Your task to perform on an android device: Do I have any events today? Image 0: 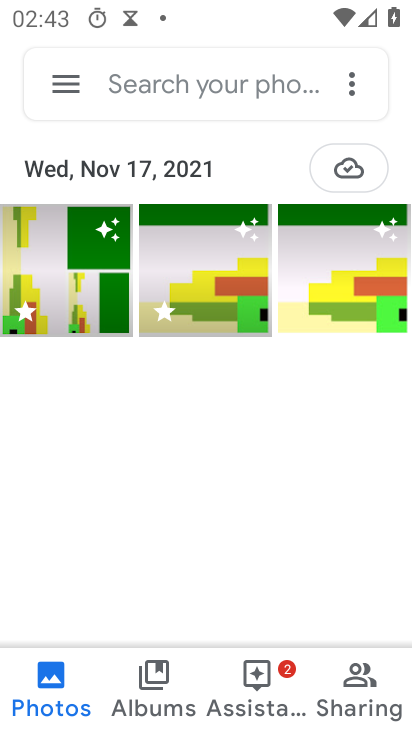
Step 0: press home button
Your task to perform on an android device: Do I have any events today? Image 1: 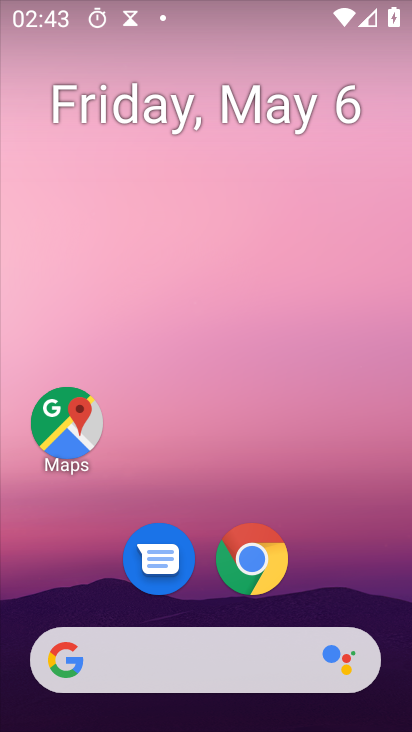
Step 1: drag from (151, 670) to (55, 34)
Your task to perform on an android device: Do I have any events today? Image 2: 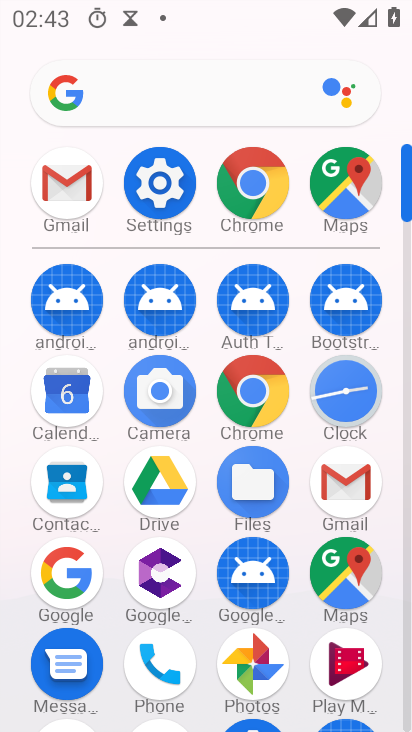
Step 2: click (67, 391)
Your task to perform on an android device: Do I have any events today? Image 3: 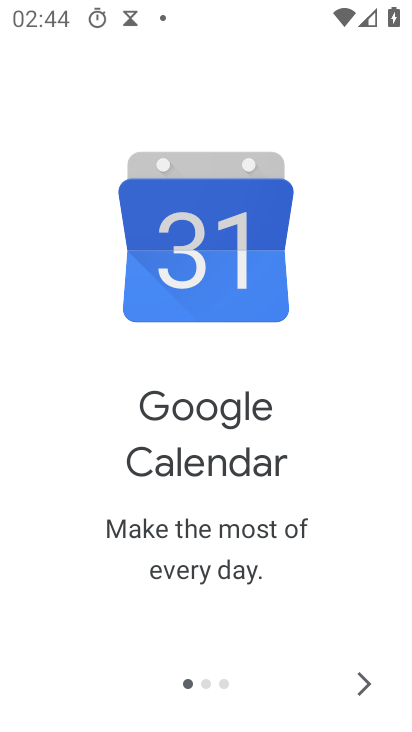
Step 3: click (364, 683)
Your task to perform on an android device: Do I have any events today? Image 4: 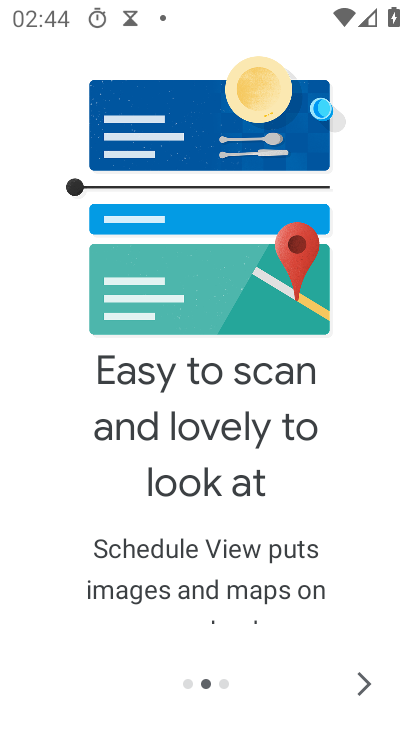
Step 4: click (364, 683)
Your task to perform on an android device: Do I have any events today? Image 5: 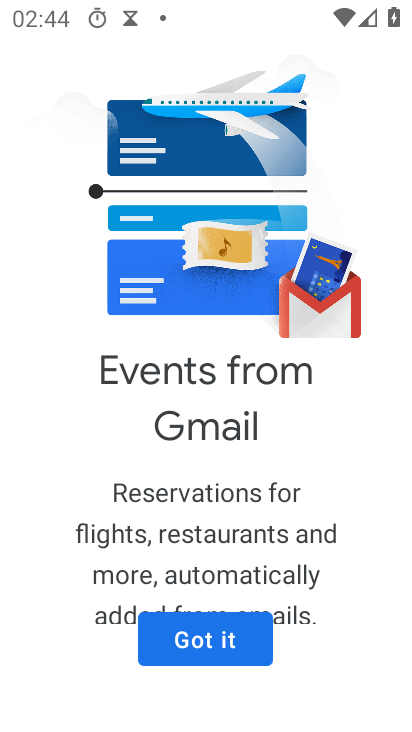
Step 5: click (199, 636)
Your task to perform on an android device: Do I have any events today? Image 6: 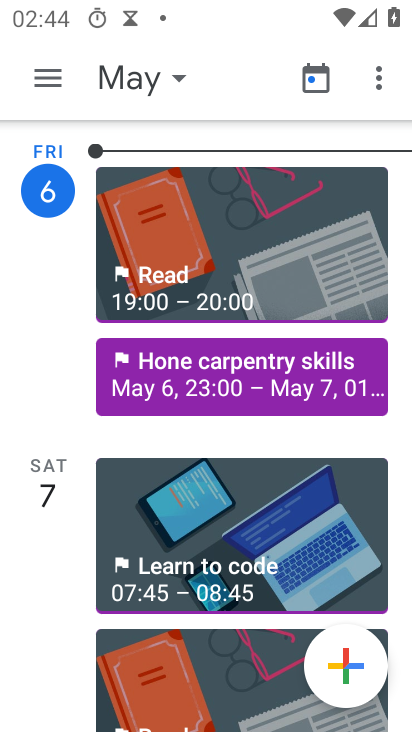
Step 6: click (181, 77)
Your task to perform on an android device: Do I have any events today? Image 7: 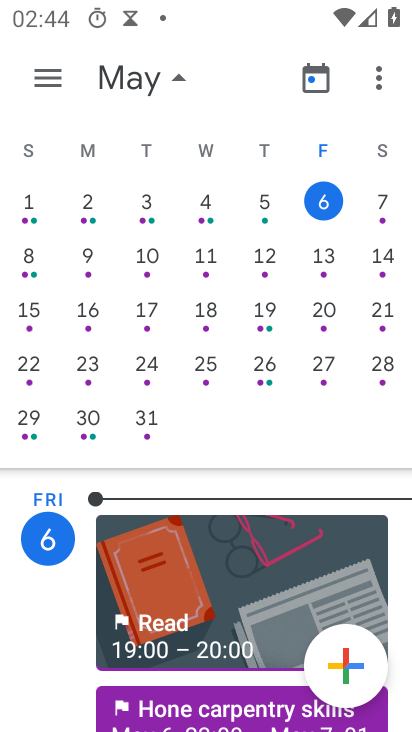
Step 7: click (322, 209)
Your task to perform on an android device: Do I have any events today? Image 8: 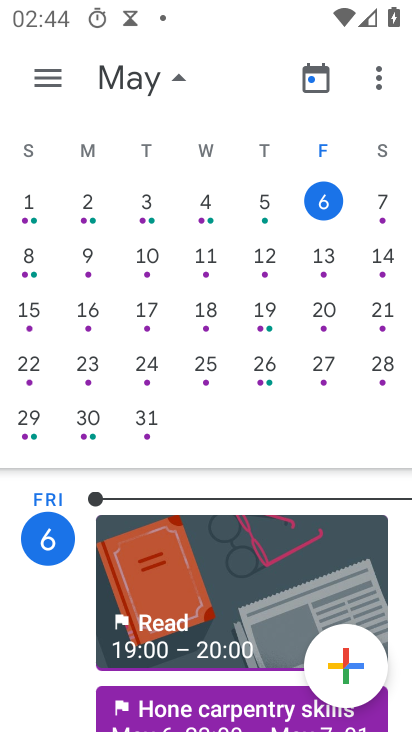
Step 8: task complete